Your task to perform on an android device: read, delete, or share a saved page in the chrome app Image 0: 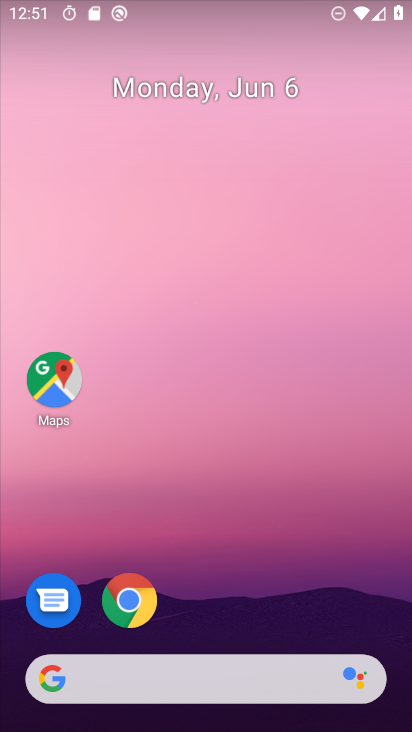
Step 0: click (137, 602)
Your task to perform on an android device: read, delete, or share a saved page in the chrome app Image 1: 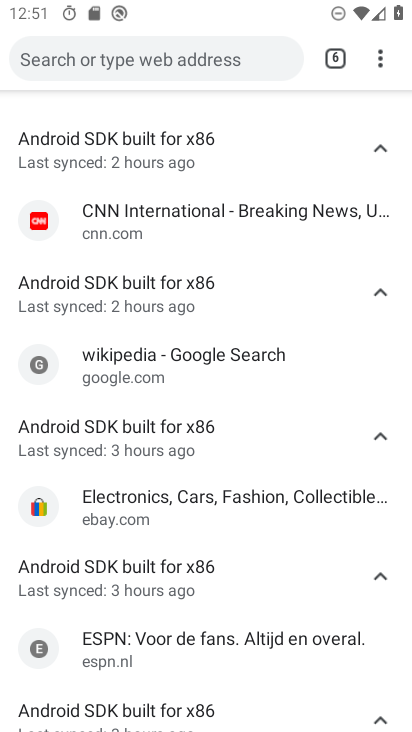
Step 1: click (380, 58)
Your task to perform on an android device: read, delete, or share a saved page in the chrome app Image 2: 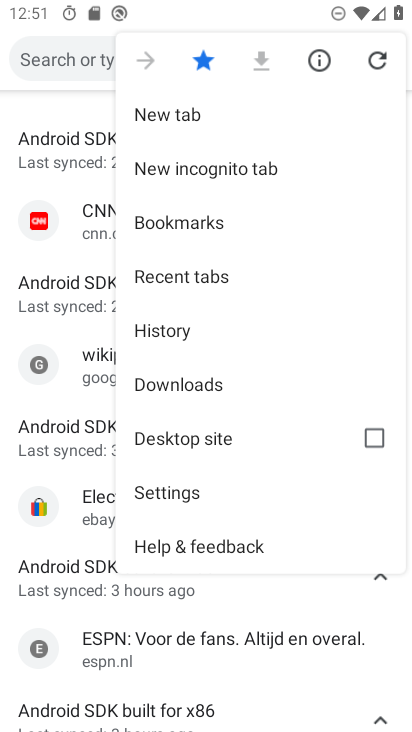
Step 2: click (168, 393)
Your task to perform on an android device: read, delete, or share a saved page in the chrome app Image 3: 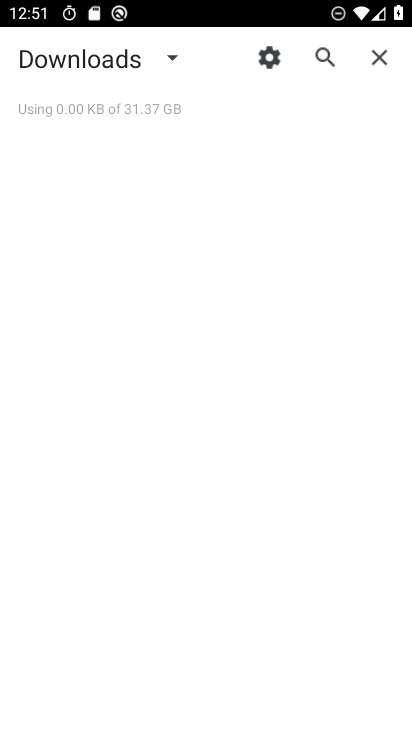
Step 3: click (166, 59)
Your task to perform on an android device: read, delete, or share a saved page in the chrome app Image 4: 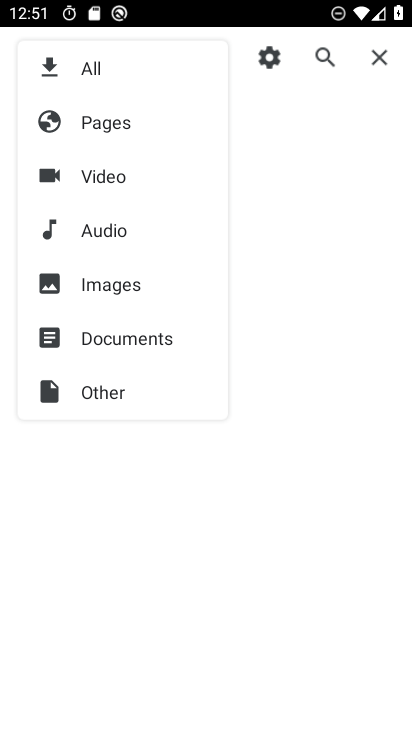
Step 4: click (124, 129)
Your task to perform on an android device: read, delete, or share a saved page in the chrome app Image 5: 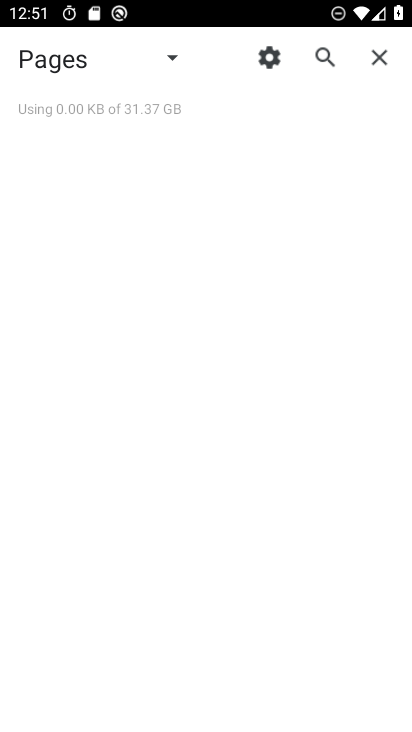
Step 5: task complete